Your task to perform on an android device: add a label to a message in the gmail app Image 0: 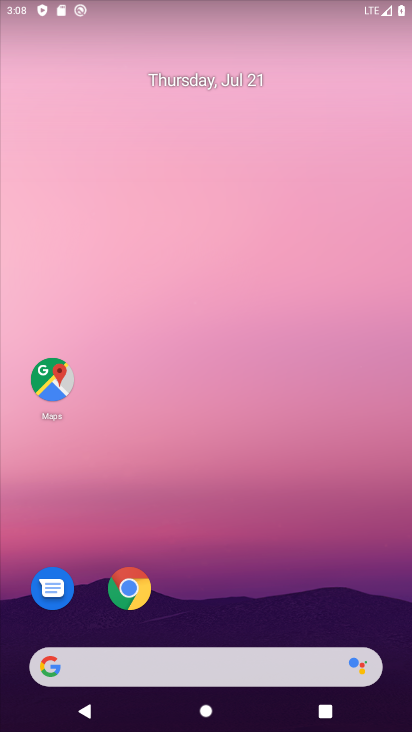
Step 0: drag from (240, 594) to (246, 246)
Your task to perform on an android device: add a label to a message in the gmail app Image 1: 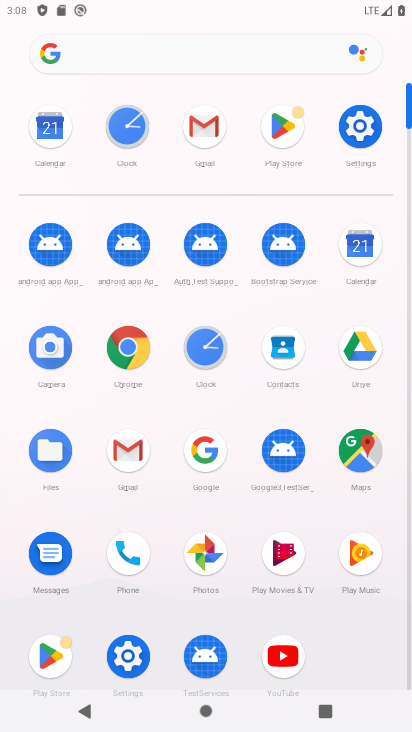
Step 1: click (120, 455)
Your task to perform on an android device: add a label to a message in the gmail app Image 2: 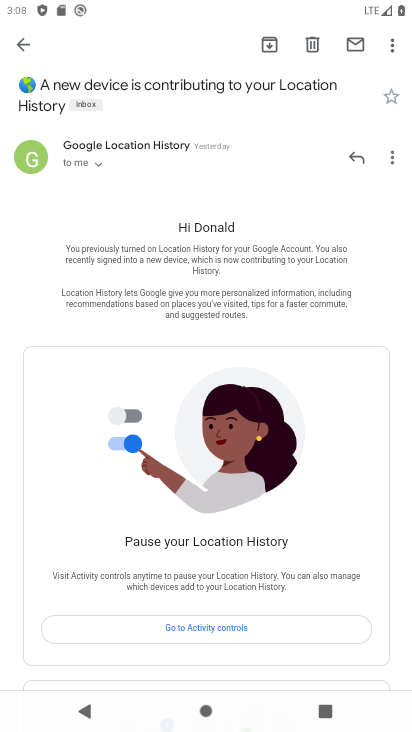
Step 2: click (21, 37)
Your task to perform on an android device: add a label to a message in the gmail app Image 3: 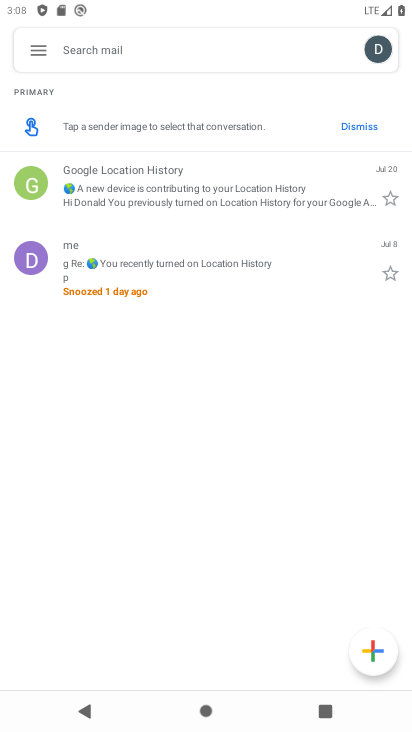
Step 3: click (40, 52)
Your task to perform on an android device: add a label to a message in the gmail app Image 4: 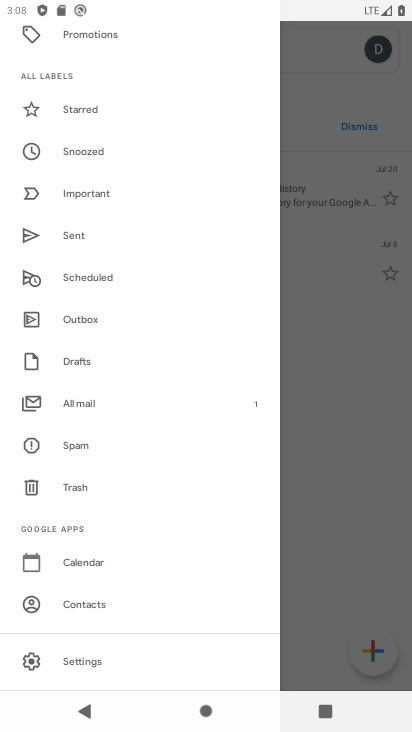
Step 4: click (96, 398)
Your task to perform on an android device: add a label to a message in the gmail app Image 5: 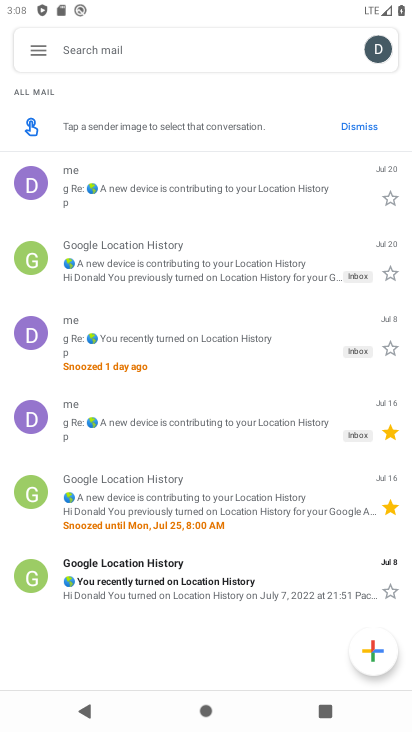
Step 5: click (173, 201)
Your task to perform on an android device: add a label to a message in the gmail app Image 6: 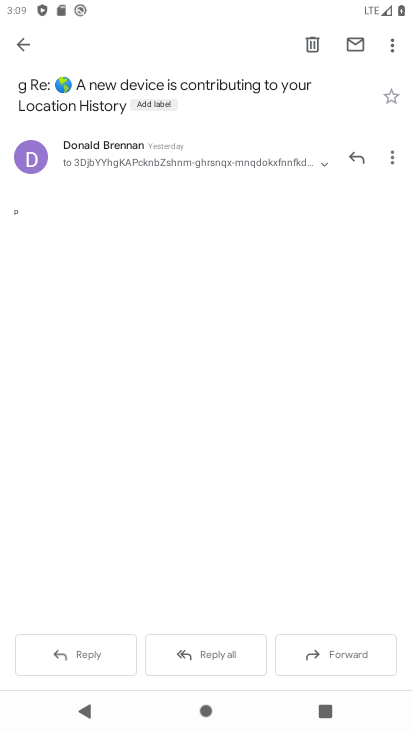
Step 6: click (167, 107)
Your task to perform on an android device: add a label to a message in the gmail app Image 7: 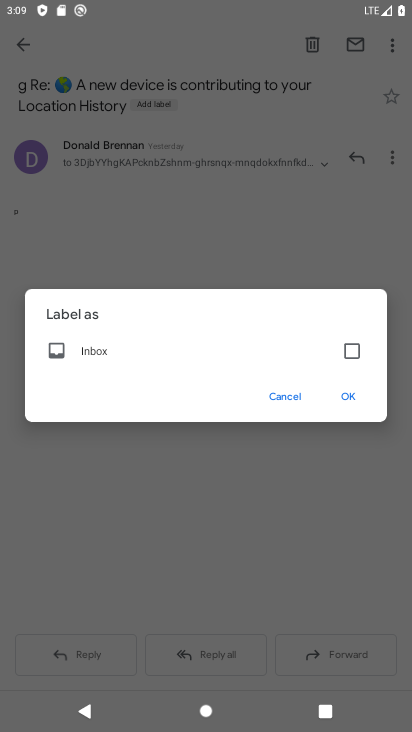
Step 7: click (347, 347)
Your task to perform on an android device: add a label to a message in the gmail app Image 8: 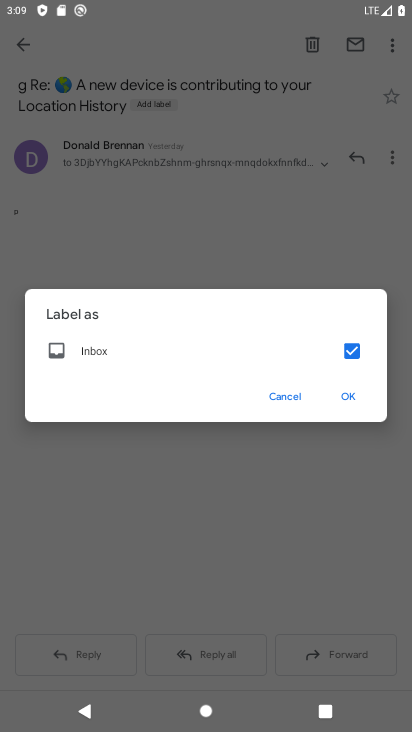
Step 8: click (354, 399)
Your task to perform on an android device: add a label to a message in the gmail app Image 9: 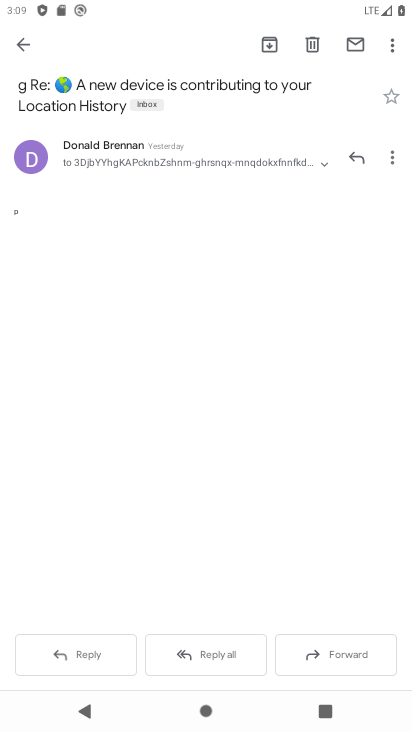
Step 9: task complete